Your task to perform on an android device: Find the nearest grocery store Image 0: 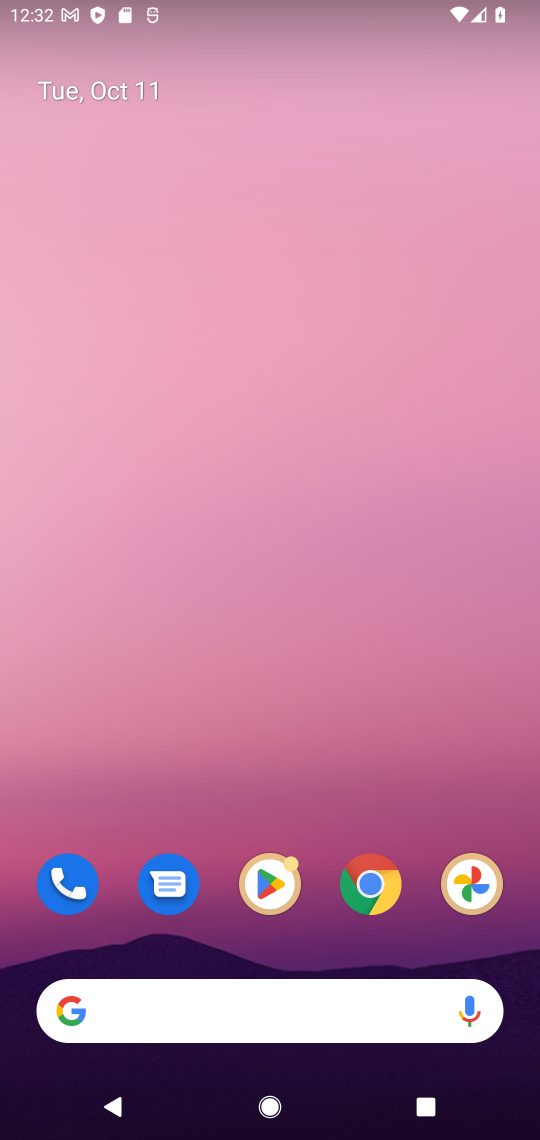
Step 0: drag from (277, 841) to (197, 324)
Your task to perform on an android device: Find the nearest grocery store Image 1: 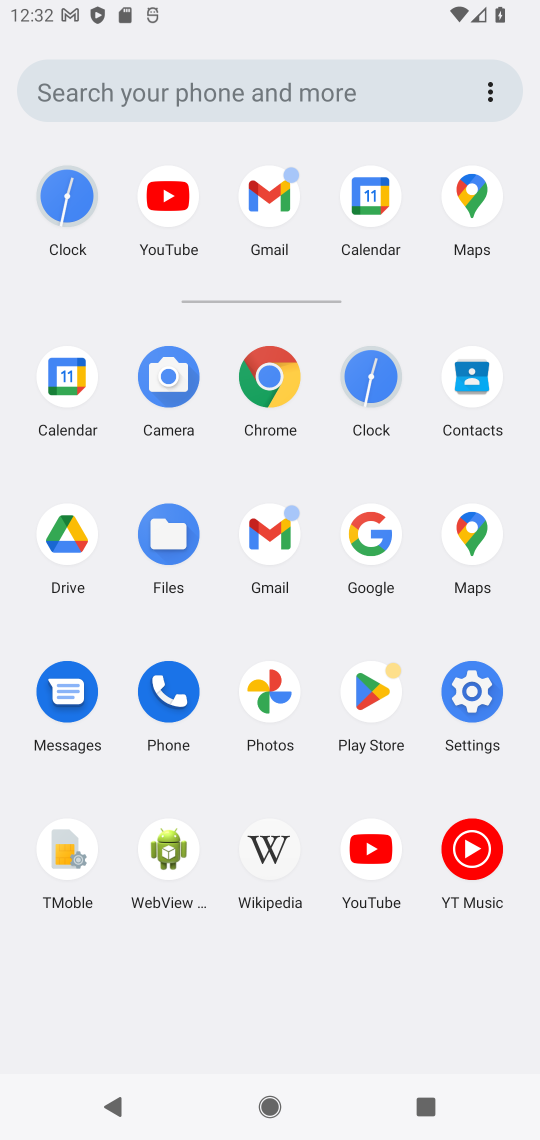
Step 1: click (374, 530)
Your task to perform on an android device: Find the nearest grocery store Image 2: 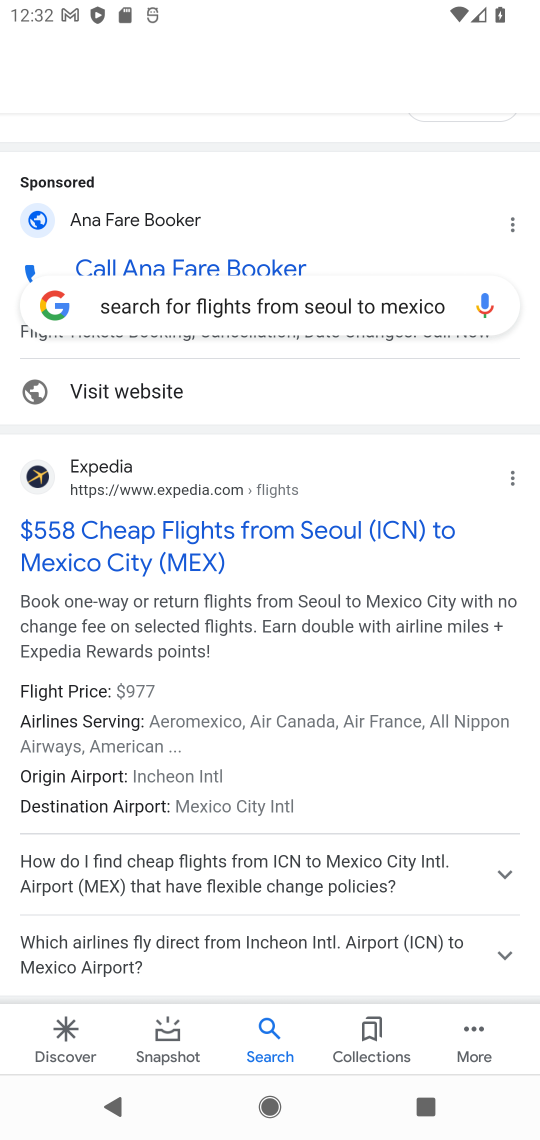
Step 2: click (197, 314)
Your task to perform on an android device: Find the nearest grocery store Image 3: 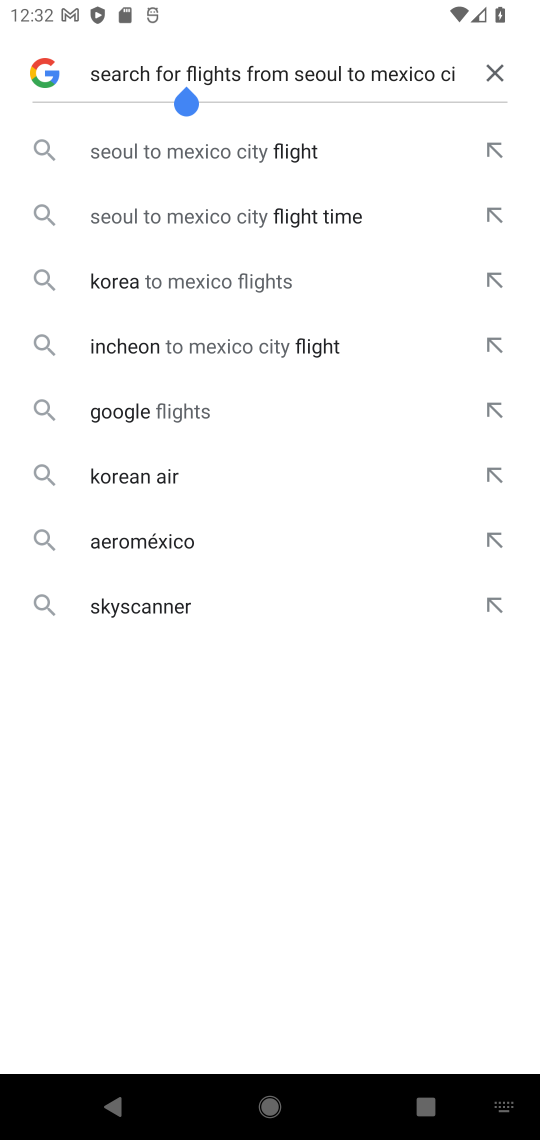
Step 3: click (501, 70)
Your task to perform on an android device: Find the nearest grocery store Image 4: 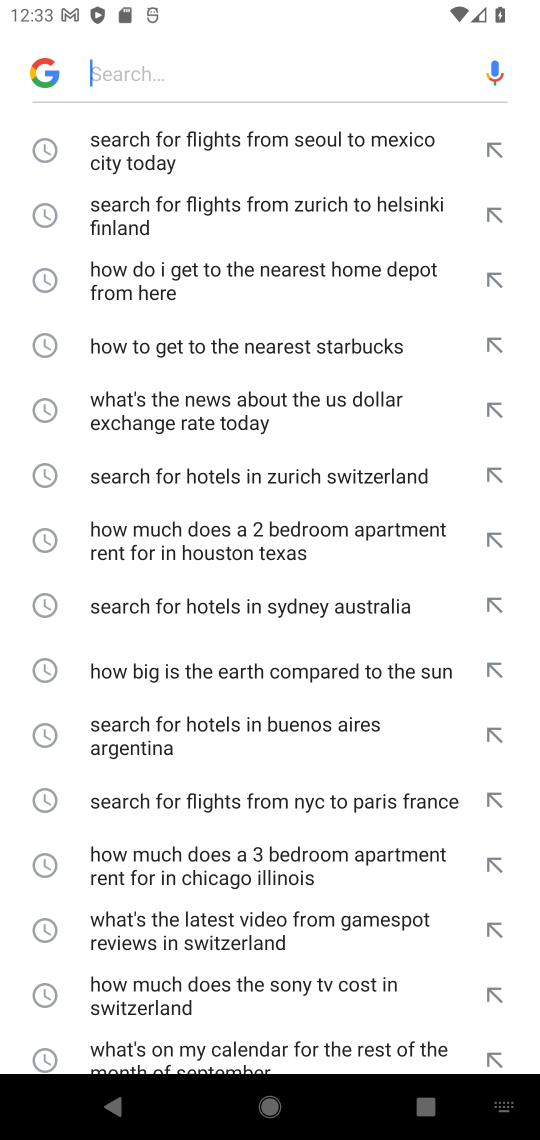
Step 4: type "Find the nearest grocery store"
Your task to perform on an android device: Find the nearest grocery store Image 5: 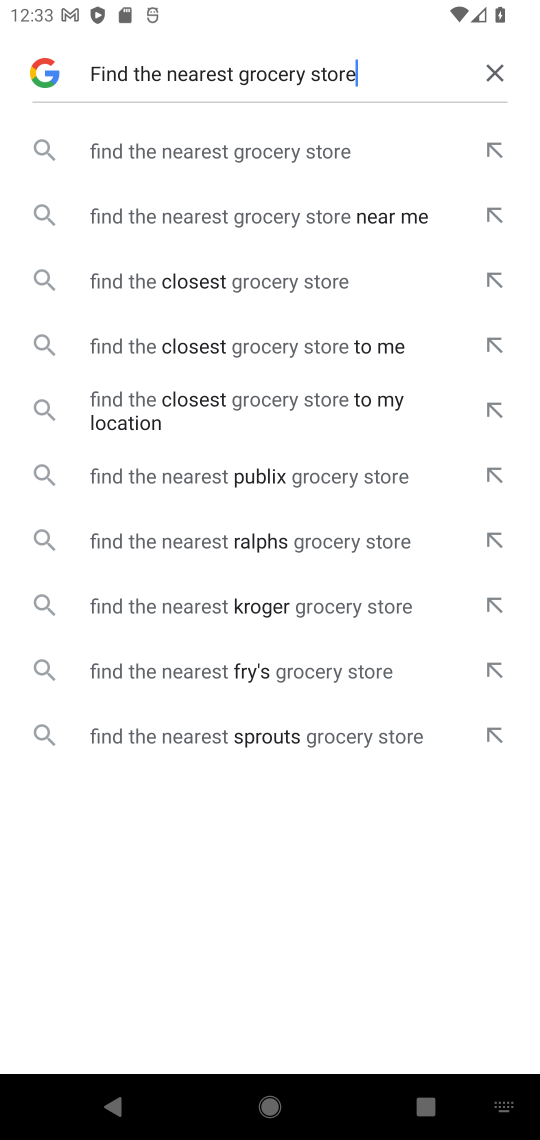
Step 5: click (307, 158)
Your task to perform on an android device: Find the nearest grocery store Image 6: 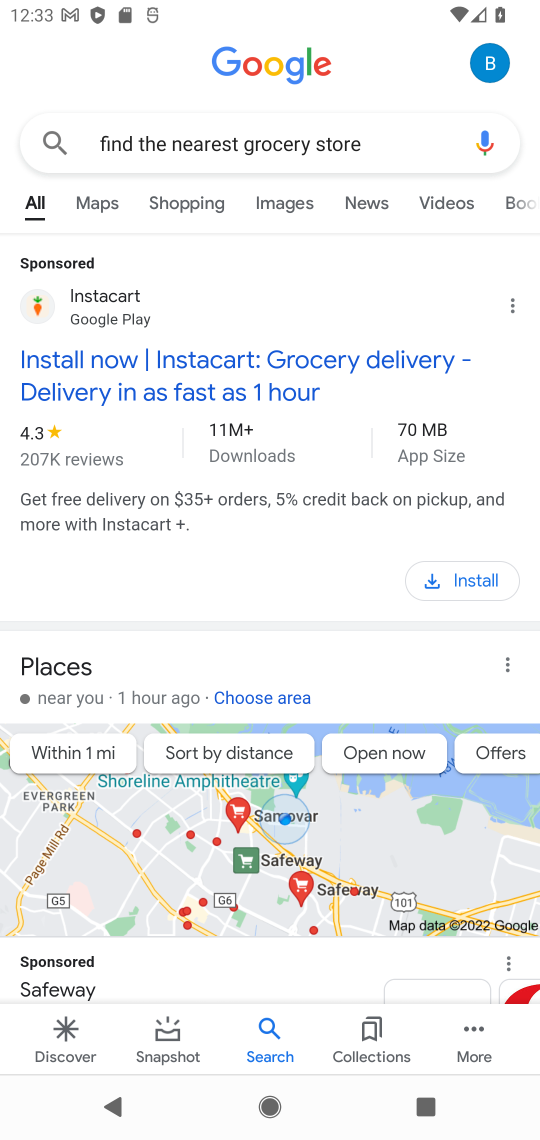
Step 6: task complete